Your task to perform on an android device: show emergency info Image 0: 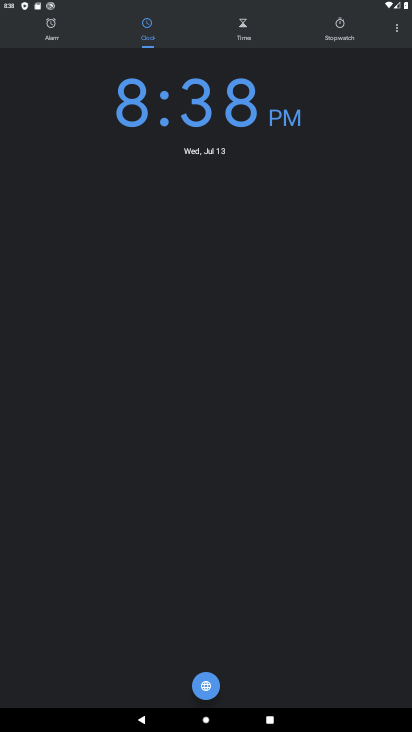
Step 0: press home button
Your task to perform on an android device: show emergency info Image 1: 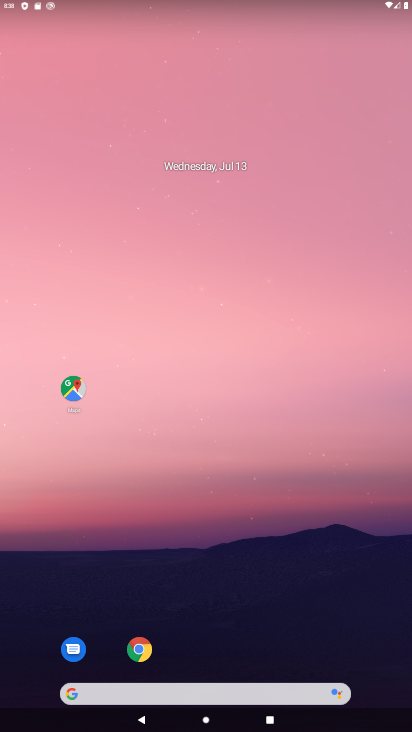
Step 1: drag from (272, 609) to (277, 77)
Your task to perform on an android device: show emergency info Image 2: 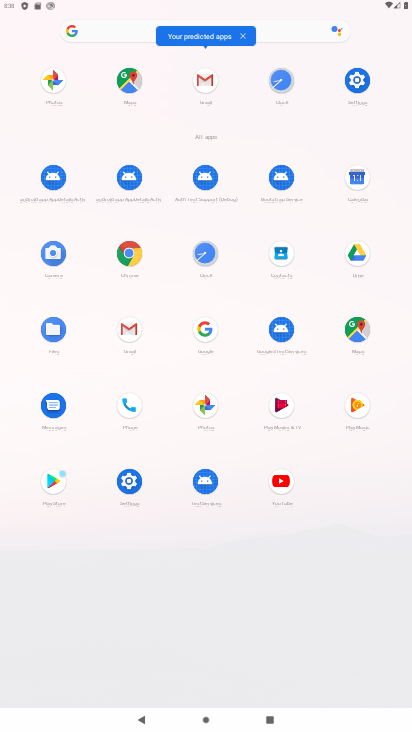
Step 2: click (355, 82)
Your task to perform on an android device: show emergency info Image 3: 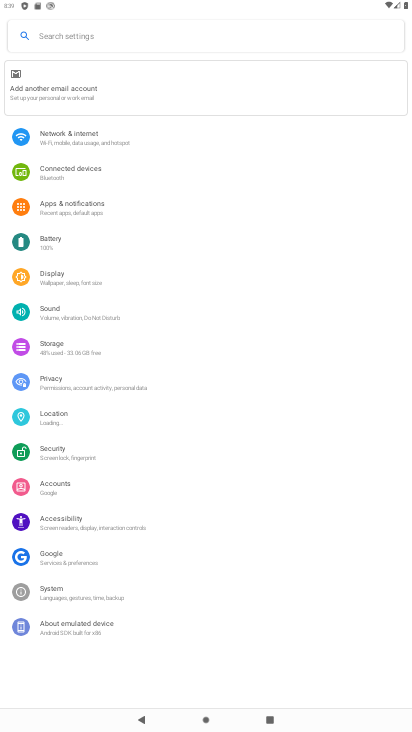
Step 3: click (68, 623)
Your task to perform on an android device: show emergency info Image 4: 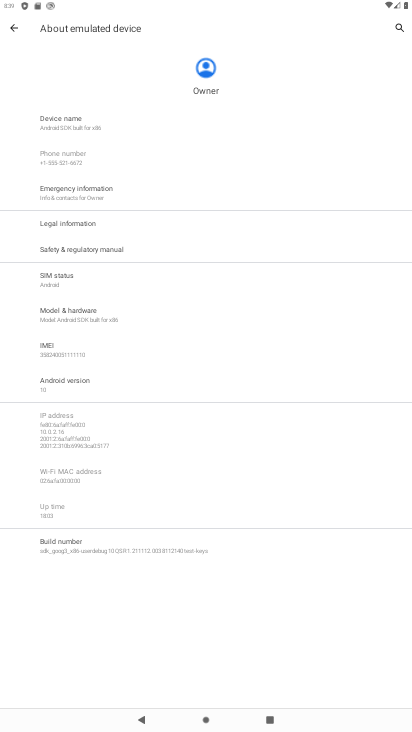
Step 4: click (69, 190)
Your task to perform on an android device: show emergency info Image 5: 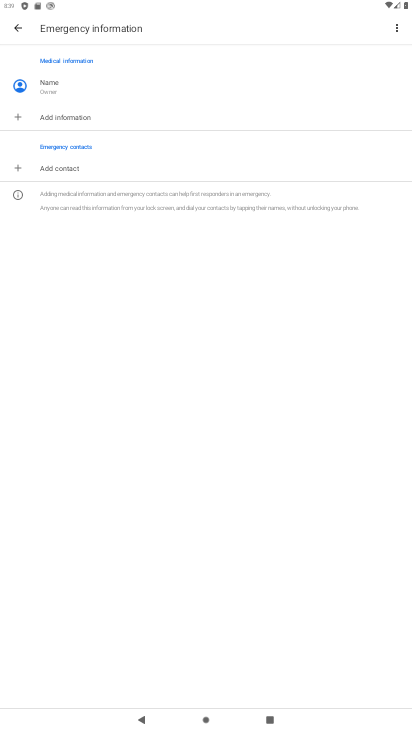
Step 5: task complete